Your task to perform on an android device: Go to ESPN.com Image 0: 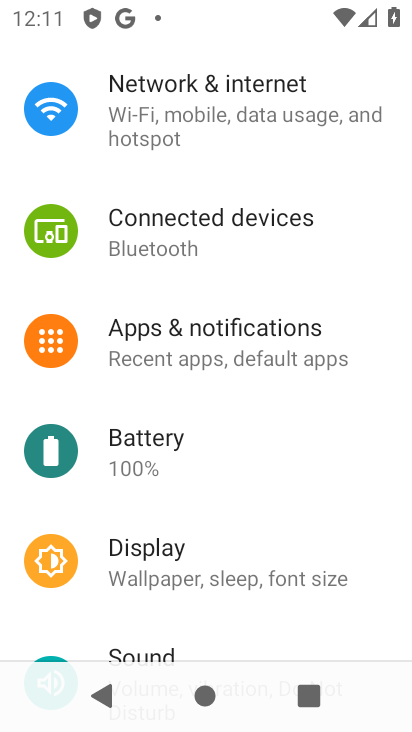
Step 0: press back button
Your task to perform on an android device: Go to ESPN.com Image 1: 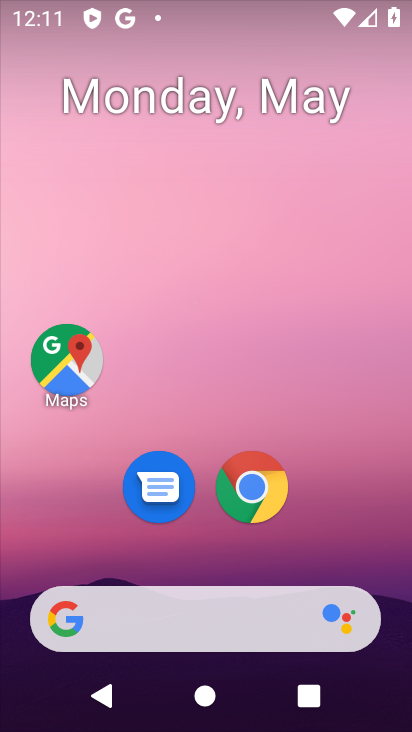
Step 1: click (252, 487)
Your task to perform on an android device: Go to ESPN.com Image 2: 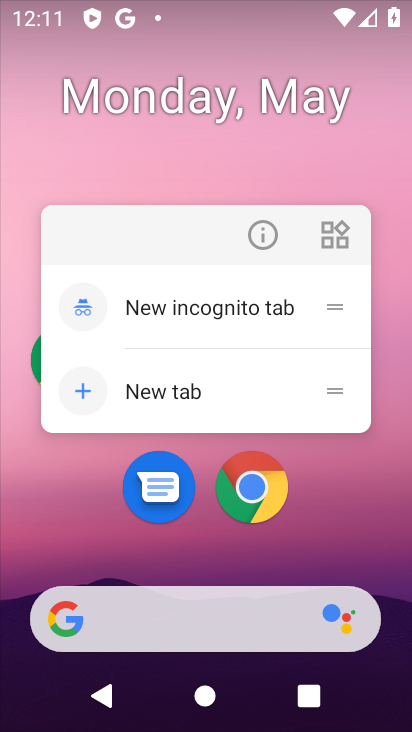
Step 2: click (252, 487)
Your task to perform on an android device: Go to ESPN.com Image 3: 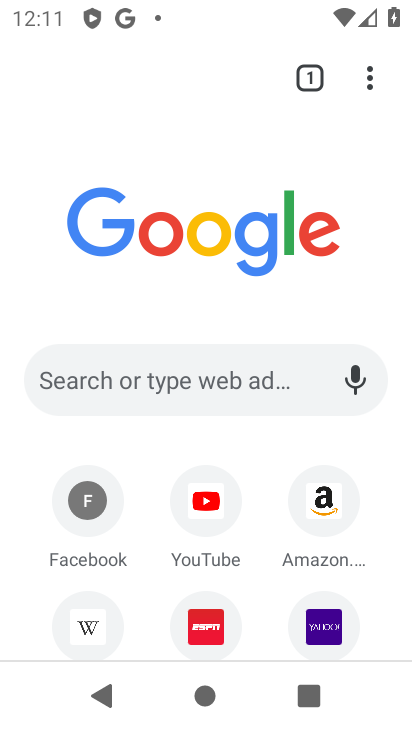
Step 3: click (214, 371)
Your task to perform on an android device: Go to ESPN.com Image 4: 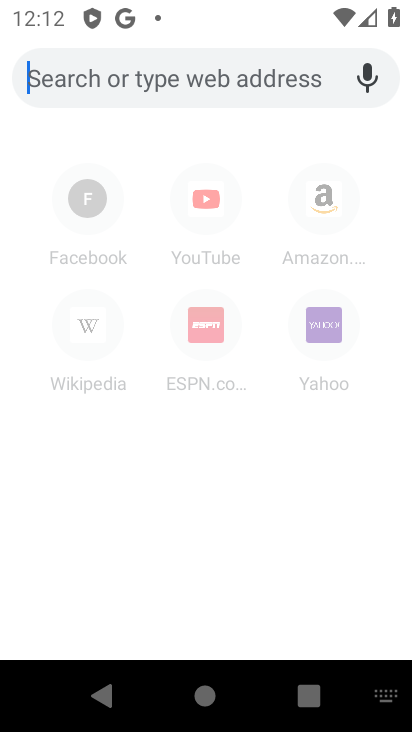
Step 4: type "ESPN.com"
Your task to perform on an android device: Go to ESPN.com Image 5: 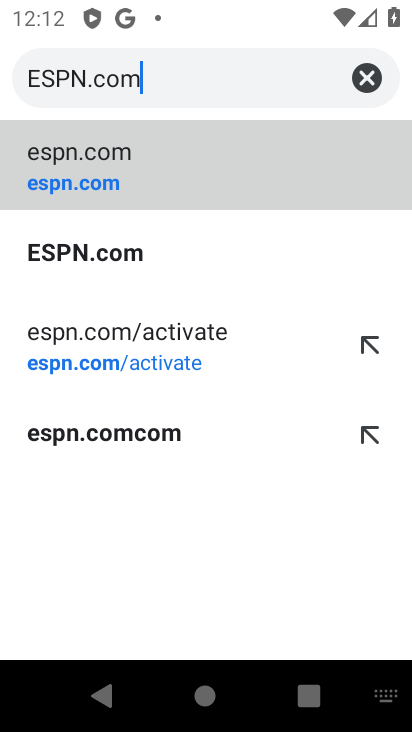
Step 5: click (118, 264)
Your task to perform on an android device: Go to ESPN.com Image 6: 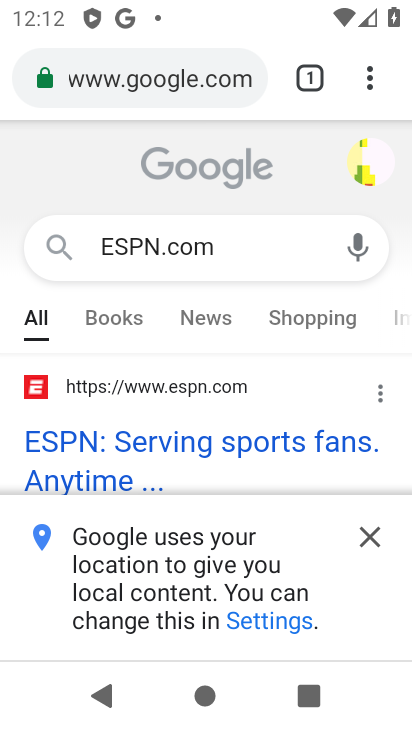
Step 6: click (180, 440)
Your task to perform on an android device: Go to ESPN.com Image 7: 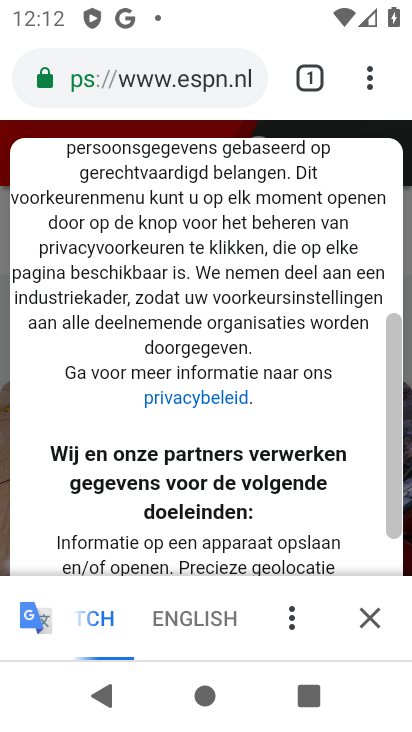
Step 7: task complete